Your task to perform on an android device: Go to CNN.com Image 0: 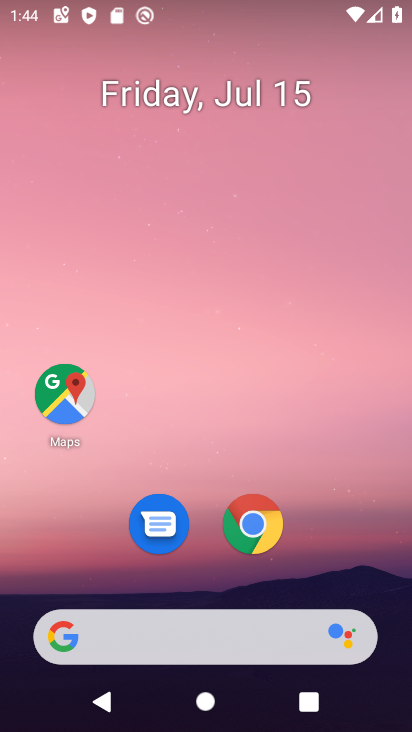
Step 0: click (263, 529)
Your task to perform on an android device: Go to CNN.com Image 1: 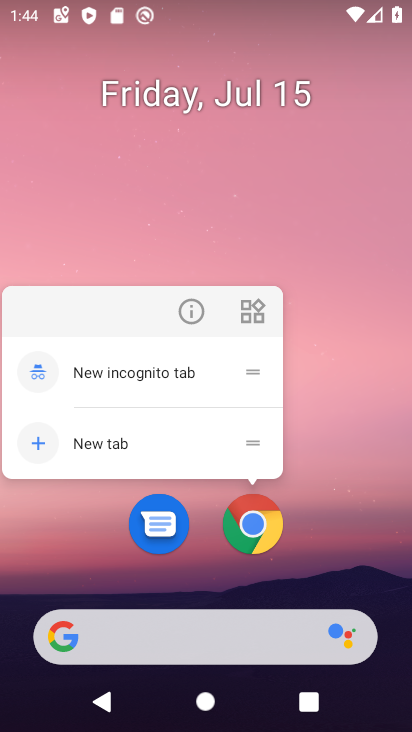
Step 1: click (263, 530)
Your task to perform on an android device: Go to CNN.com Image 2: 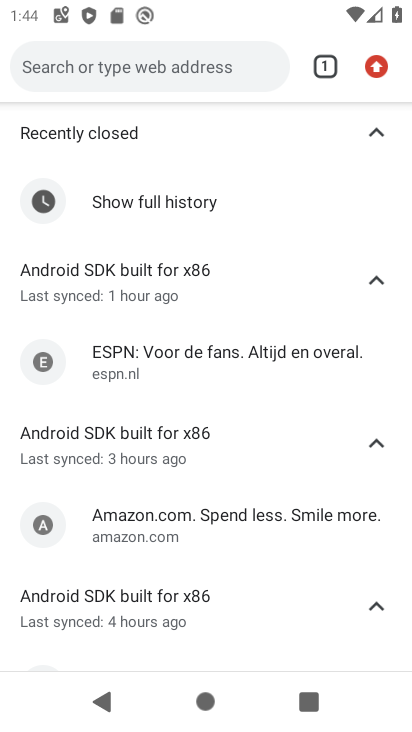
Step 2: drag from (377, 70) to (203, 202)
Your task to perform on an android device: Go to CNN.com Image 3: 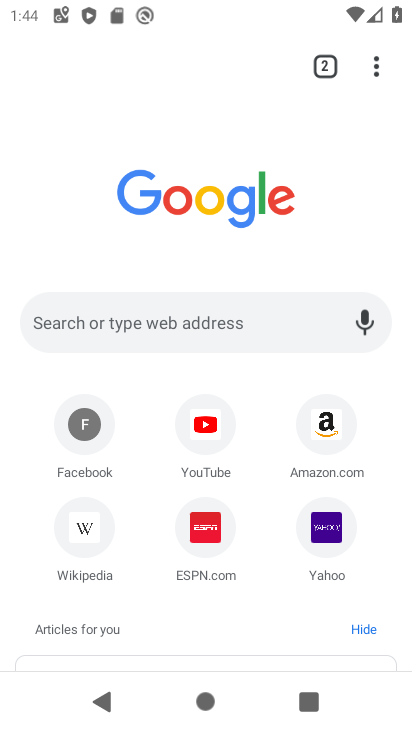
Step 3: click (109, 314)
Your task to perform on an android device: Go to CNN.com Image 4: 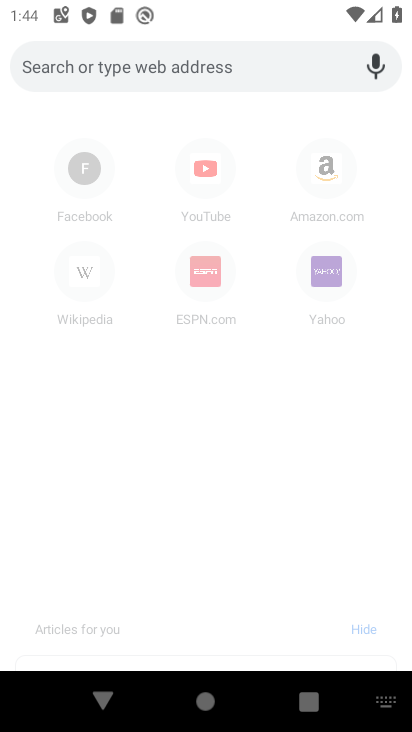
Step 4: type "cnn.com"
Your task to perform on an android device: Go to CNN.com Image 5: 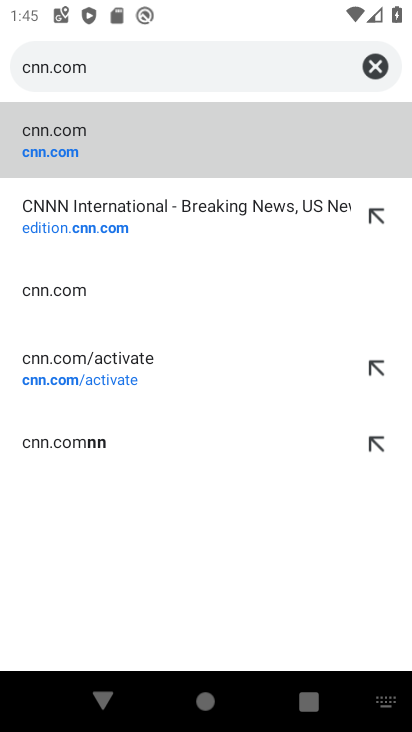
Step 5: click (112, 148)
Your task to perform on an android device: Go to CNN.com Image 6: 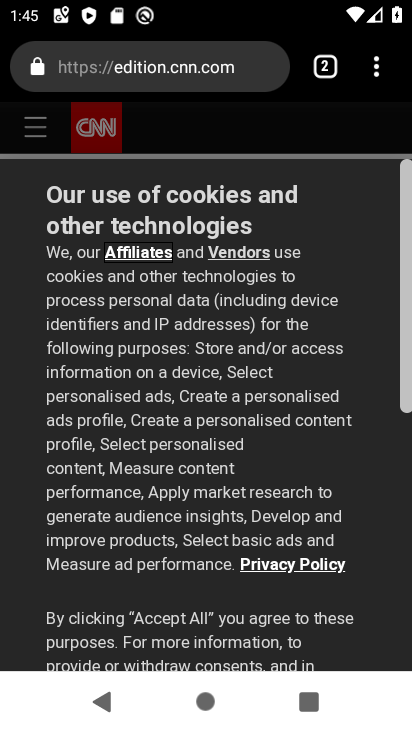
Step 6: drag from (191, 598) to (353, 187)
Your task to perform on an android device: Go to CNN.com Image 7: 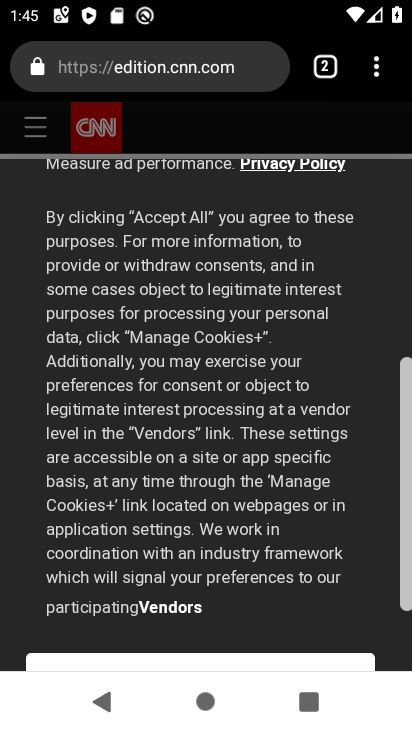
Step 7: drag from (235, 588) to (388, 231)
Your task to perform on an android device: Go to CNN.com Image 8: 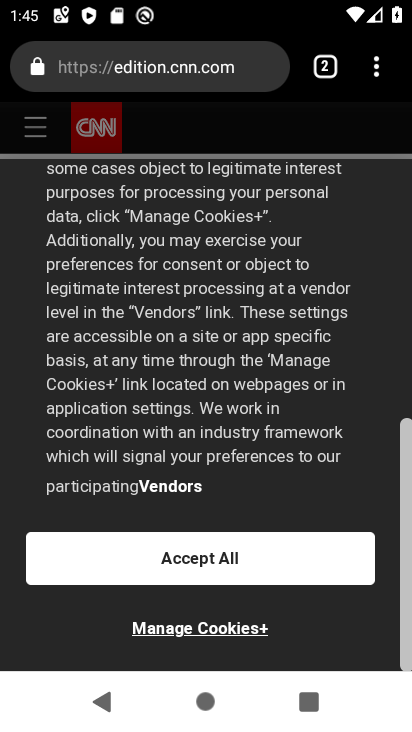
Step 8: click (209, 560)
Your task to perform on an android device: Go to CNN.com Image 9: 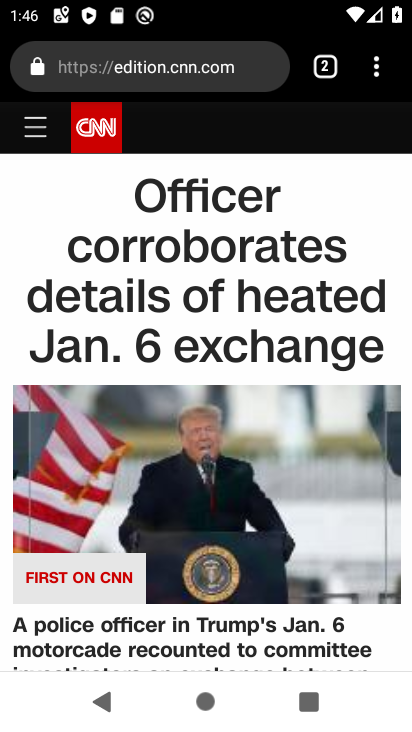
Step 9: task complete